Your task to perform on an android device: Go to battery settings Image 0: 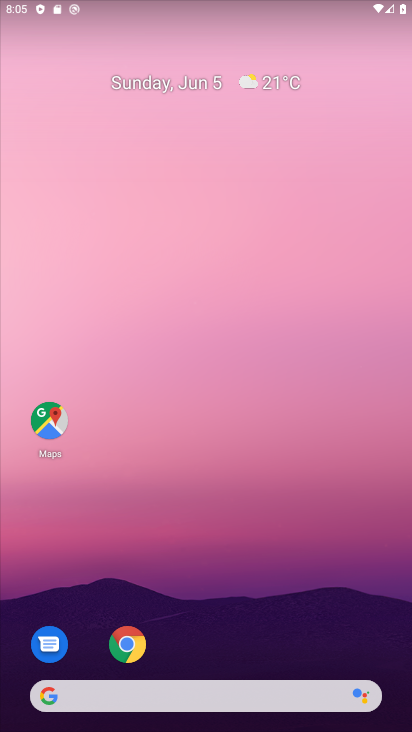
Step 0: task complete